Your task to perform on an android device: Open battery settings Image 0: 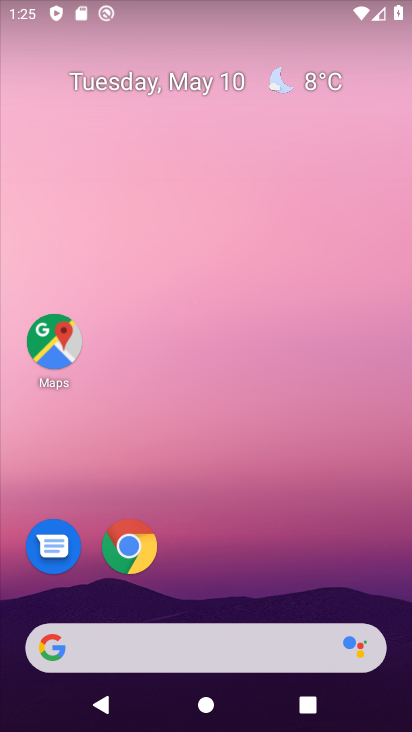
Step 0: drag from (381, 607) to (313, 3)
Your task to perform on an android device: Open battery settings Image 1: 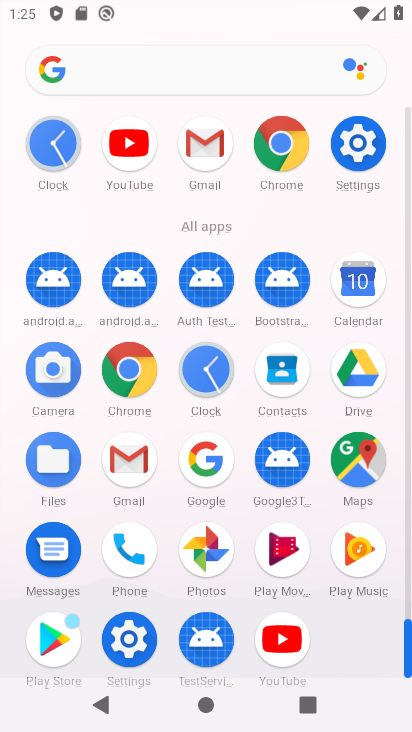
Step 1: click (129, 636)
Your task to perform on an android device: Open battery settings Image 2: 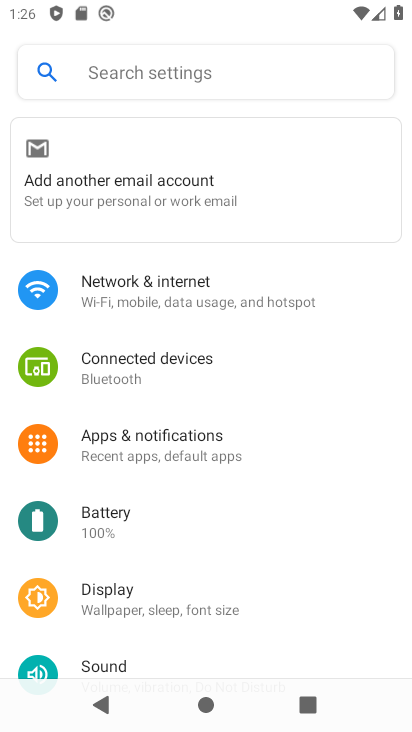
Step 2: click (116, 497)
Your task to perform on an android device: Open battery settings Image 3: 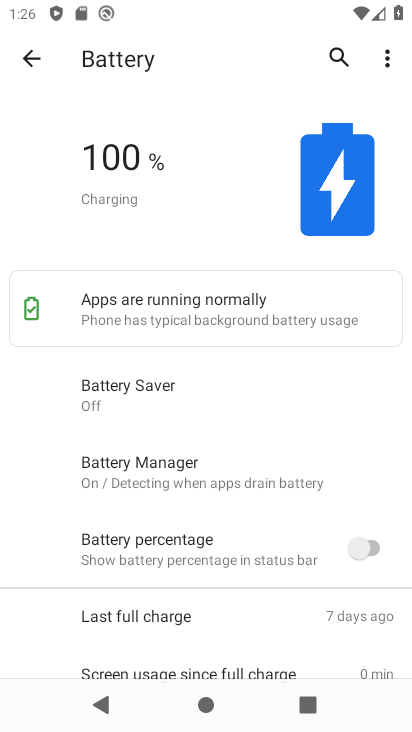
Step 3: task complete